Your task to perform on an android device: toggle translation in the chrome app Image 0: 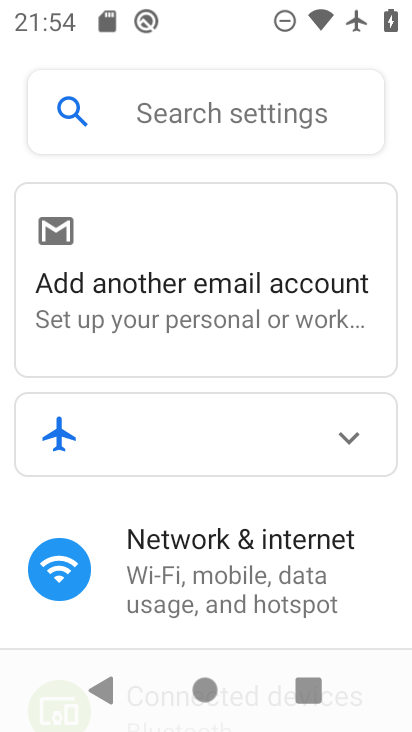
Step 0: press home button
Your task to perform on an android device: toggle translation in the chrome app Image 1: 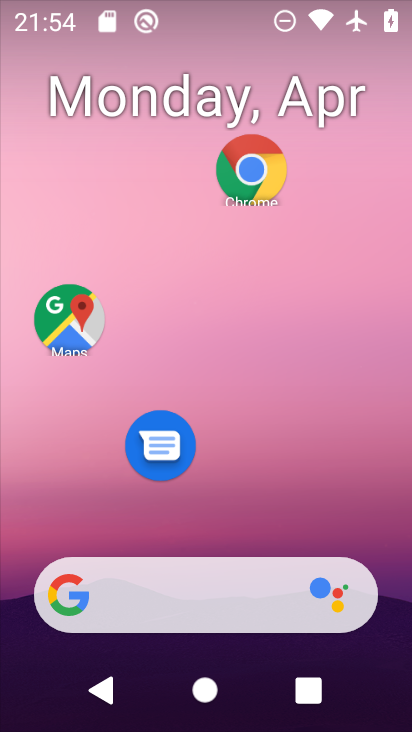
Step 1: click (252, 173)
Your task to perform on an android device: toggle translation in the chrome app Image 2: 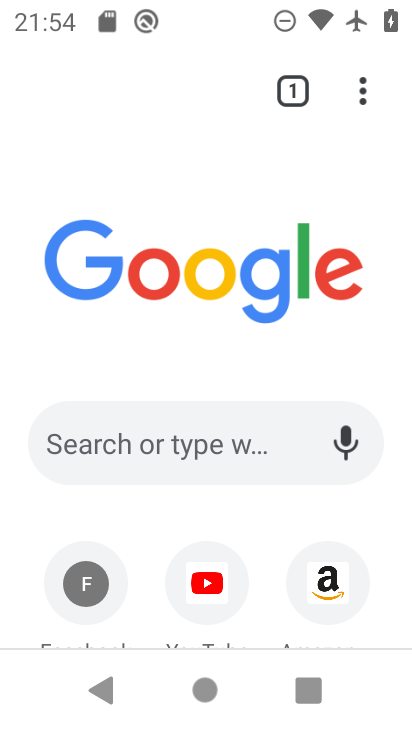
Step 2: click (355, 86)
Your task to perform on an android device: toggle translation in the chrome app Image 3: 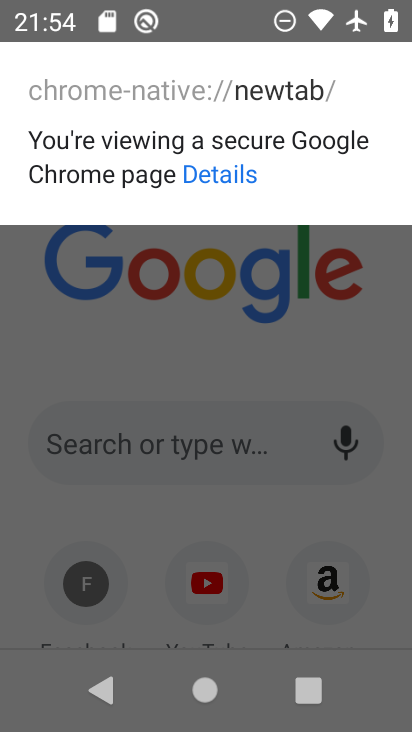
Step 3: click (250, 260)
Your task to perform on an android device: toggle translation in the chrome app Image 4: 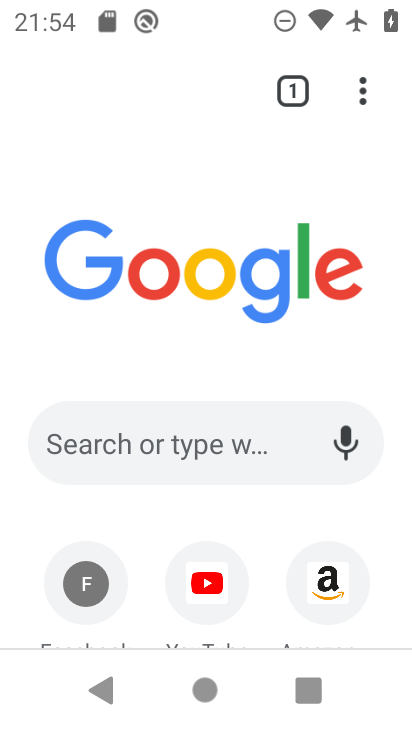
Step 4: click (359, 91)
Your task to perform on an android device: toggle translation in the chrome app Image 5: 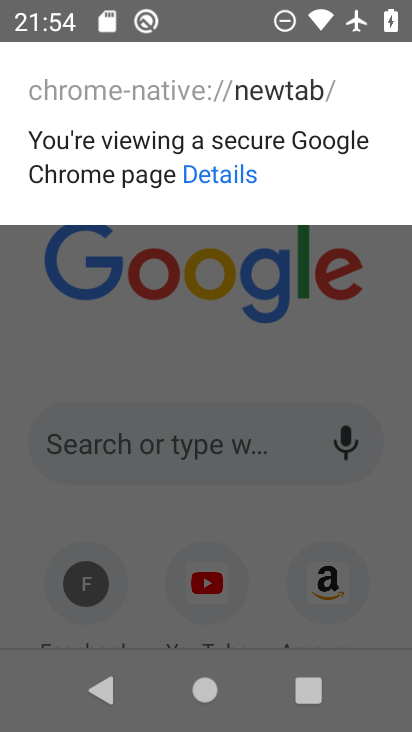
Step 5: click (322, 257)
Your task to perform on an android device: toggle translation in the chrome app Image 6: 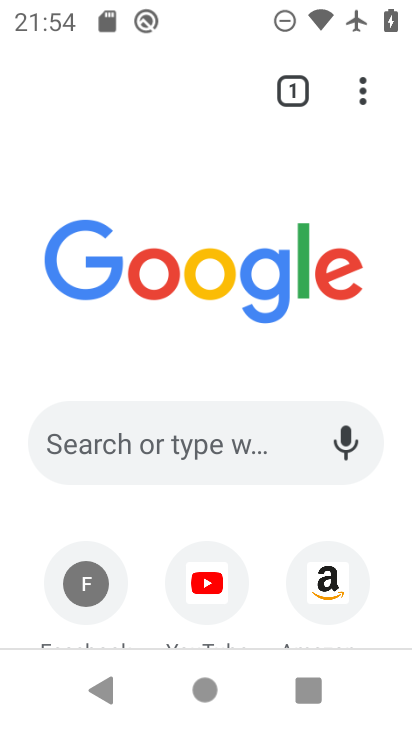
Step 6: drag from (357, 100) to (148, 457)
Your task to perform on an android device: toggle translation in the chrome app Image 7: 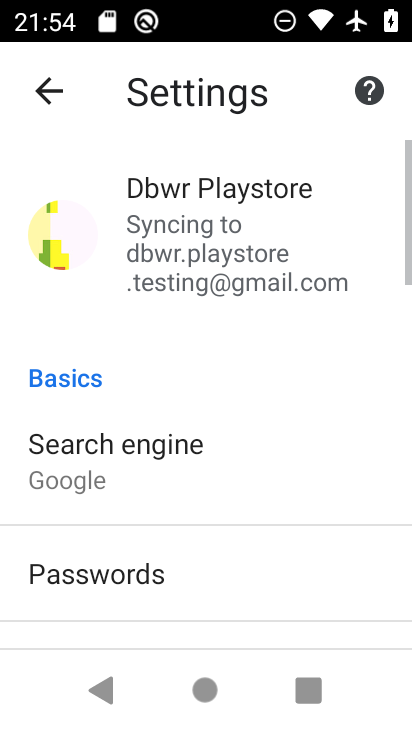
Step 7: drag from (225, 517) to (212, 218)
Your task to perform on an android device: toggle translation in the chrome app Image 8: 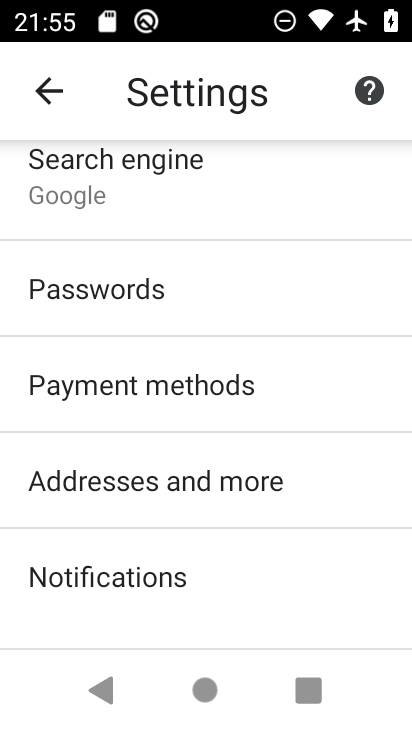
Step 8: drag from (228, 463) to (224, 259)
Your task to perform on an android device: toggle translation in the chrome app Image 9: 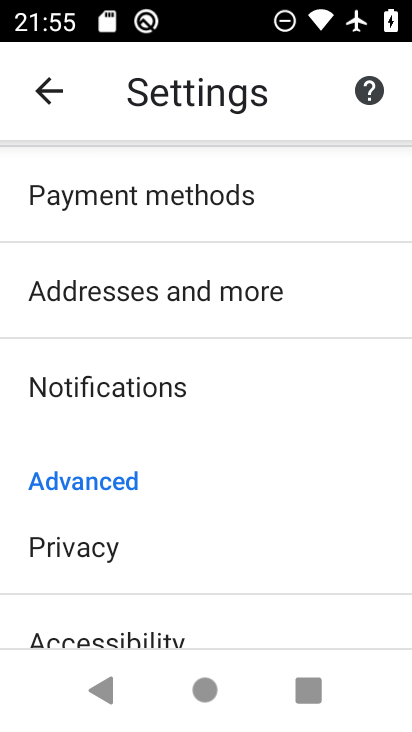
Step 9: drag from (227, 555) to (234, 269)
Your task to perform on an android device: toggle translation in the chrome app Image 10: 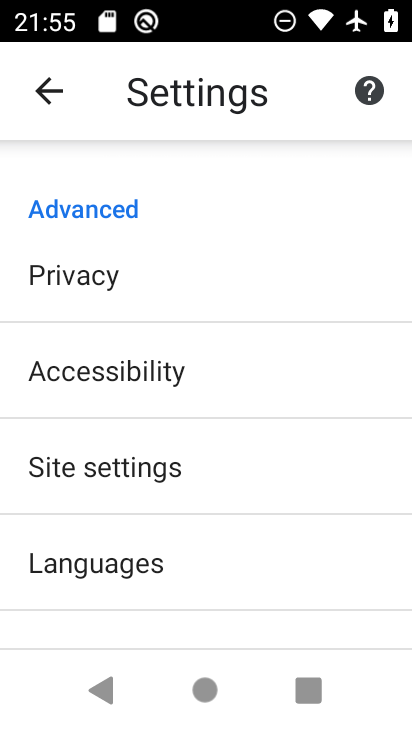
Step 10: drag from (212, 567) to (224, 333)
Your task to perform on an android device: toggle translation in the chrome app Image 11: 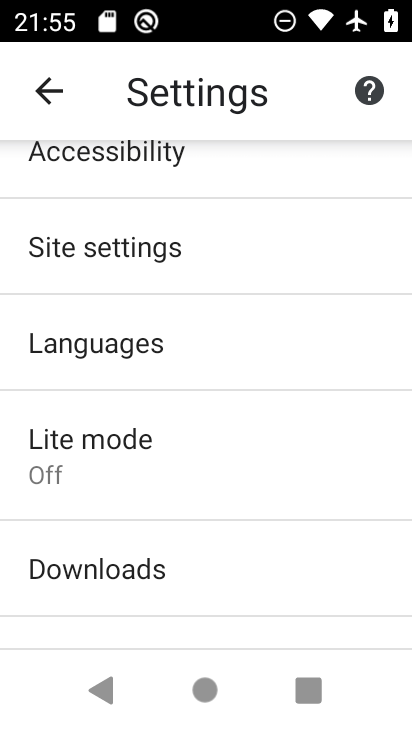
Step 11: click (149, 356)
Your task to perform on an android device: toggle translation in the chrome app Image 12: 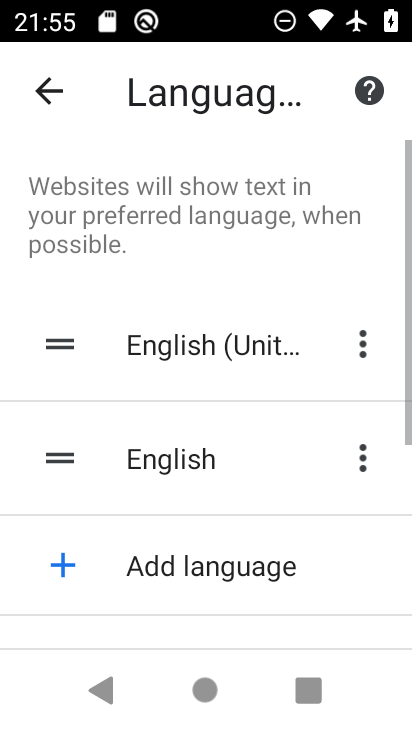
Step 12: drag from (240, 548) to (234, 282)
Your task to perform on an android device: toggle translation in the chrome app Image 13: 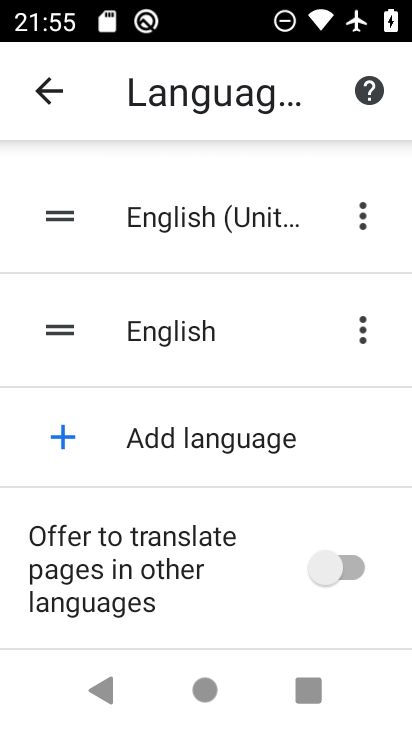
Step 13: drag from (234, 519) to (245, 261)
Your task to perform on an android device: toggle translation in the chrome app Image 14: 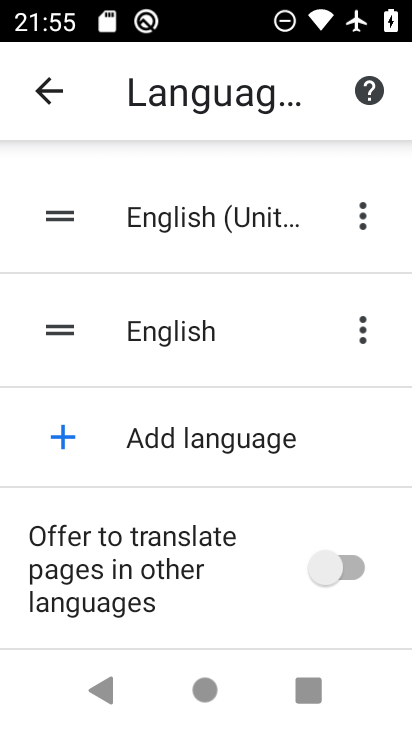
Step 14: click (350, 562)
Your task to perform on an android device: toggle translation in the chrome app Image 15: 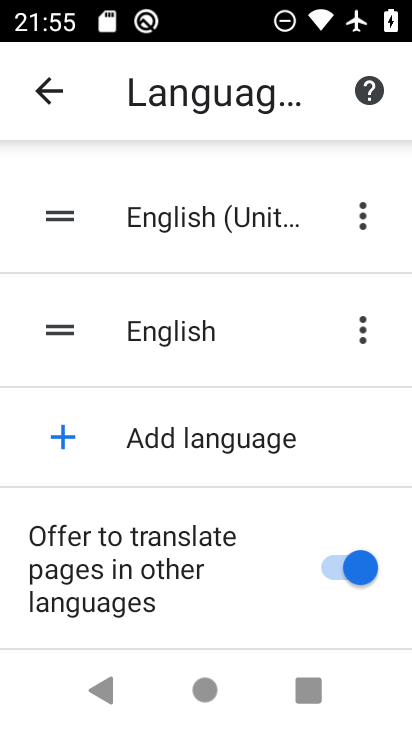
Step 15: task complete